Your task to perform on an android device: toggle notifications settings in the gmail app Image 0: 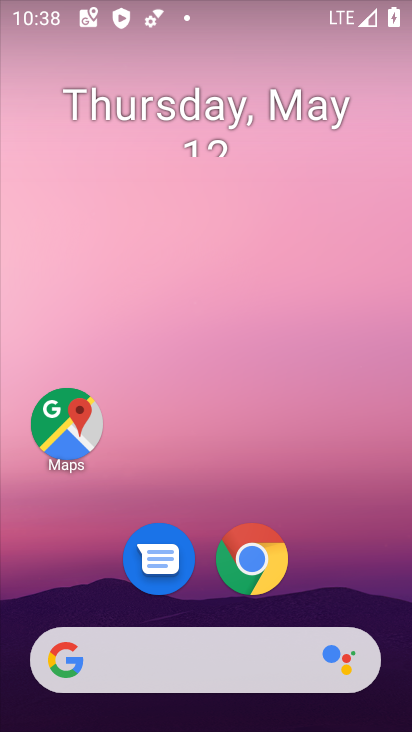
Step 0: drag from (209, 537) to (213, 184)
Your task to perform on an android device: toggle notifications settings in the gmail app Image 1: 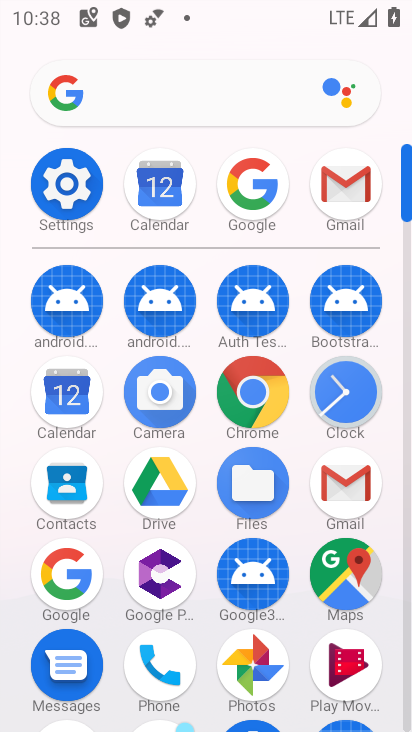
Step 1: click (327, 208)
Your task to perform on an android device: toggle notifications settings in the gmail app Image 2: 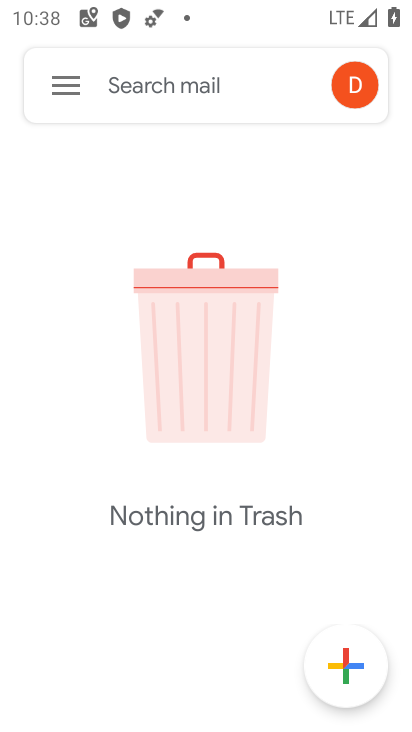
Step 2: click (55, 87)
Your task to perform on an android device: toggle notifications settings in the gmail app Image 3: 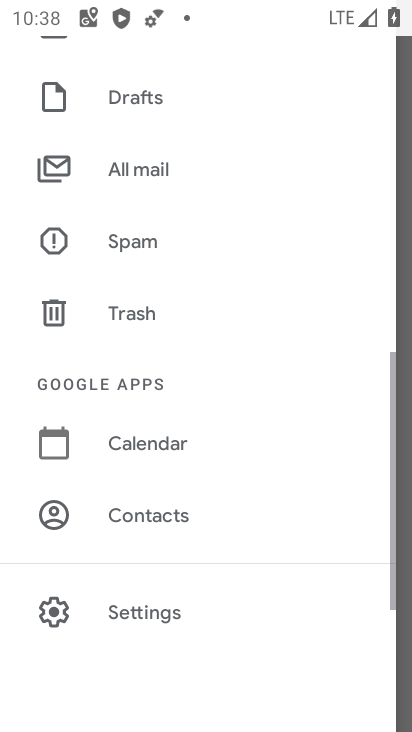
Step 3: drag from (197, 589) to (213, 339)
Your task to perform on an android device: toggle notifications settings in the gmail app Image 4: 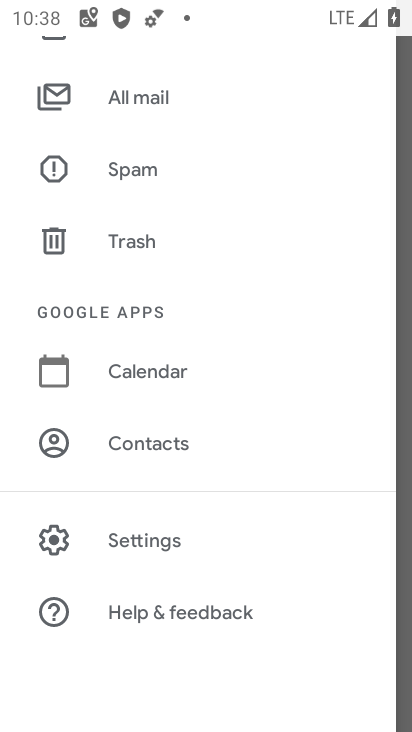
Step 4: click (154, 532)
Your task to perform on an android device: toggle notifications settings in the gmail app Image 5: 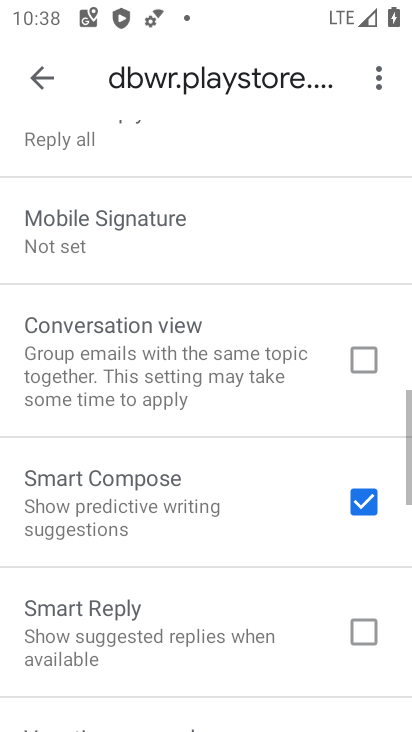
Step 5: drag from (158, 530) to (200, 199)
Your task to perform on an android device: toggle notifications settings in the gmail app Image 6: 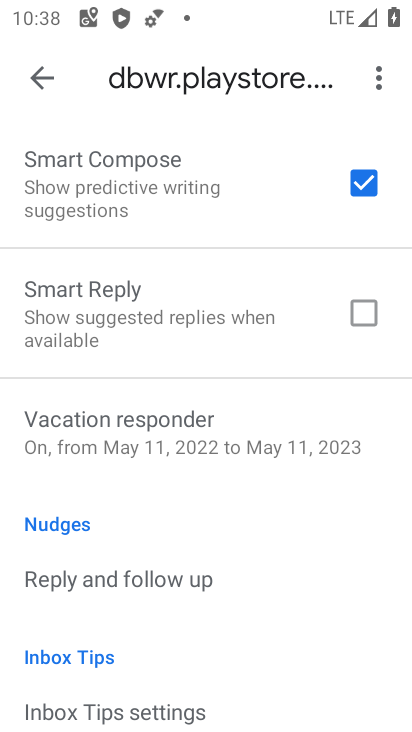
Step 6: drag from (143, 634) to (182, 268)
Your task to perform on an android device: toggle notifications settings in the gmail app Image 7: 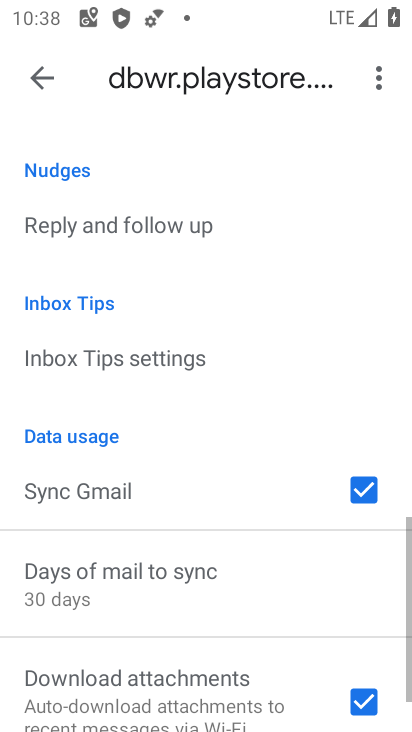
Step 7: drag from (138, 636) to (178, 265)
Your task to perform on an android device: toggle notifications settings in the gmail app Image 8: 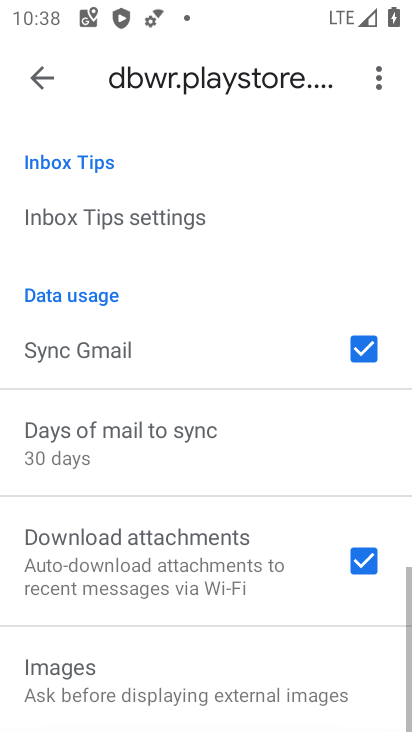
Step 8: drag from (180, 603) to (196, 330)
Your task to perform on an android device: toggle notifications settings in the gmail app Image 9: 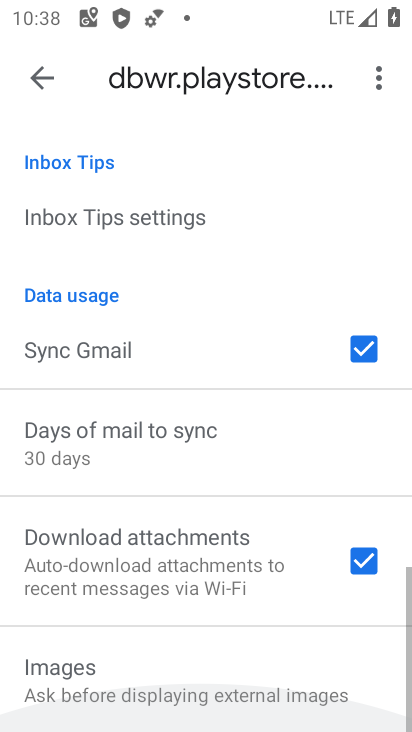
Step 9: drag from (205, 582) to (205, 634)
Your task to perform on an android device: toggle notifications settings in the gmail app Image 10: 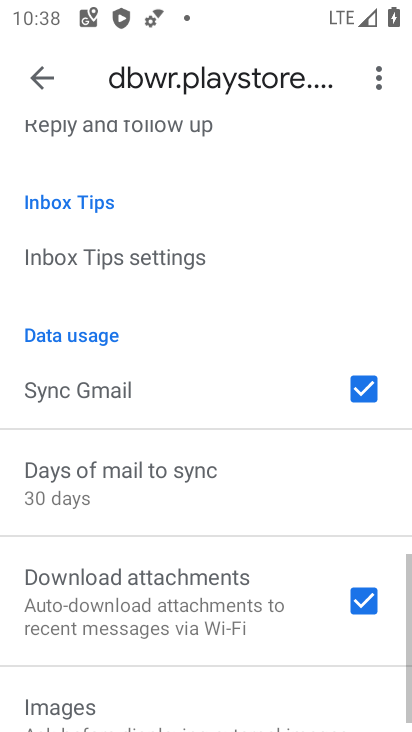
Step 10: drag from (170, 350) to (168, 576)
Your task to perform on an android device: toggle notifications settings in the gmail app Image 11: 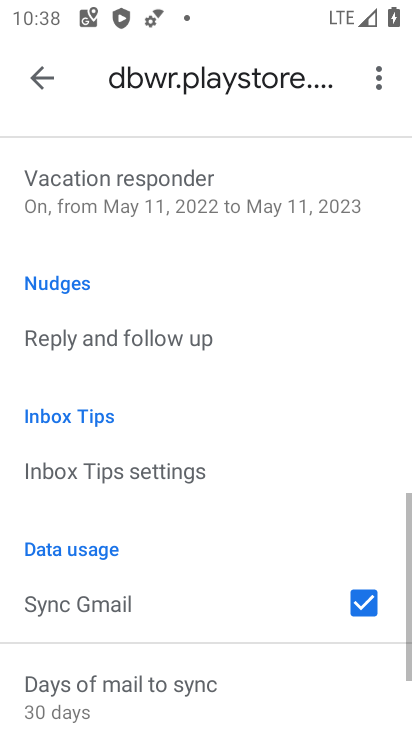
Step 11: drag from (168, 288) to (210, 519)
Your task to perform on an android device: toggle notifications settings in the gmail app Image 12: 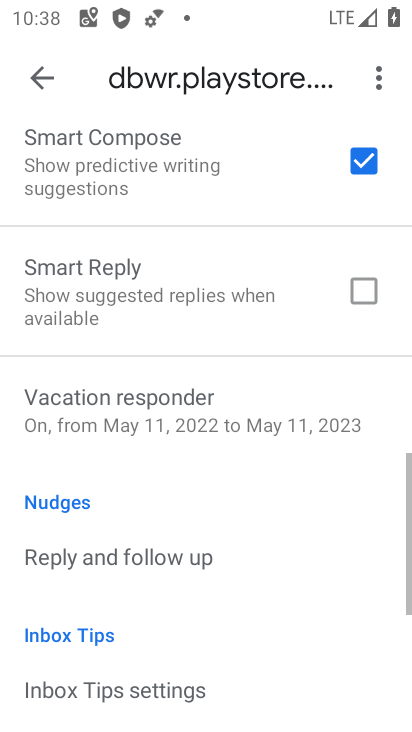
Step 12: drag from (165, 328) to (196, 562)
Your task to perform on an android device: toggle notifications settings in the gmail app Image 13: 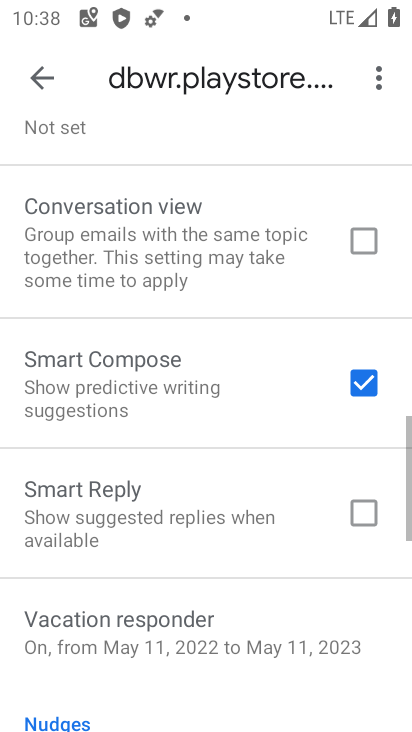
Step 13: drag from (150, 263) to (187, 526)
Your task to perform on an android device: toggle notifications settings in the gmail app Image 14: 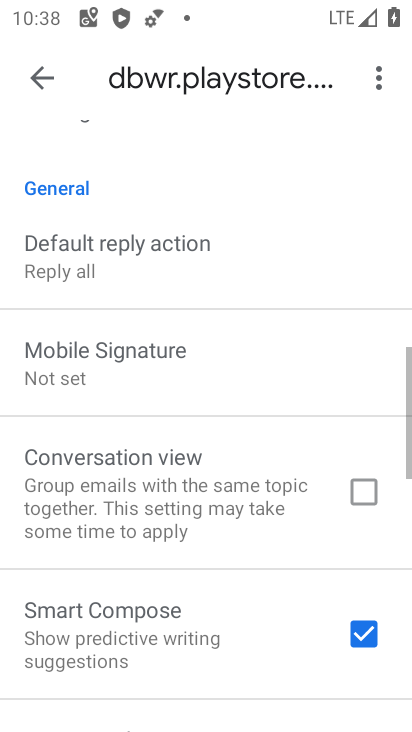
Step 14: drag from (137, 268) to (166, 441)
Your task to perform on an android device: toggle notifications settings in the gmail app Image 15: 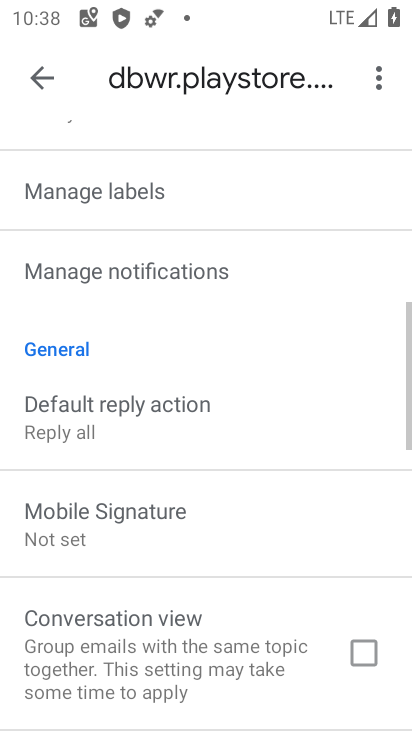
Step 15: drag from (171, 289) to (176, 447)
Your task to perform on an android device: toggle notifications settings in the gmail app Image 16: 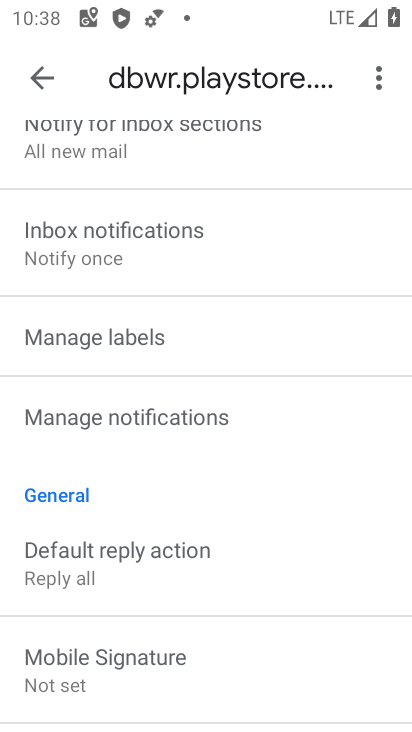
Step 16: click (60, 406)
Your task to perform on an android device: toggle notifications settings in the gmail app Image 17: 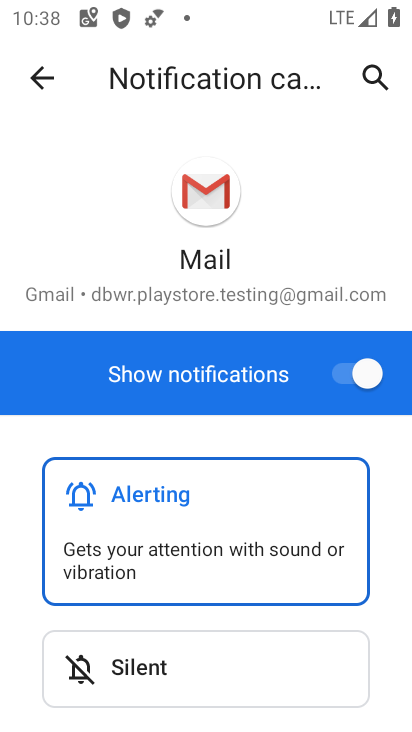
Step 17: click (343, 366)
Your task to perform on an android device: toggle notifications settings in the gmail app Image 18: 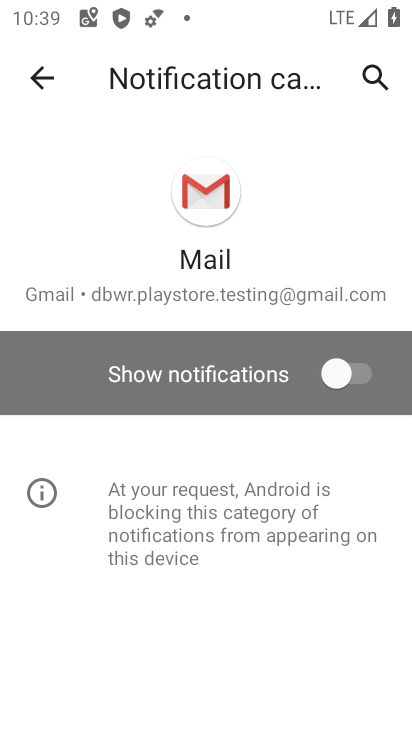
Step 18: task complete